Your task to perform on an android device: uninstall "Google Maps" Image 0: 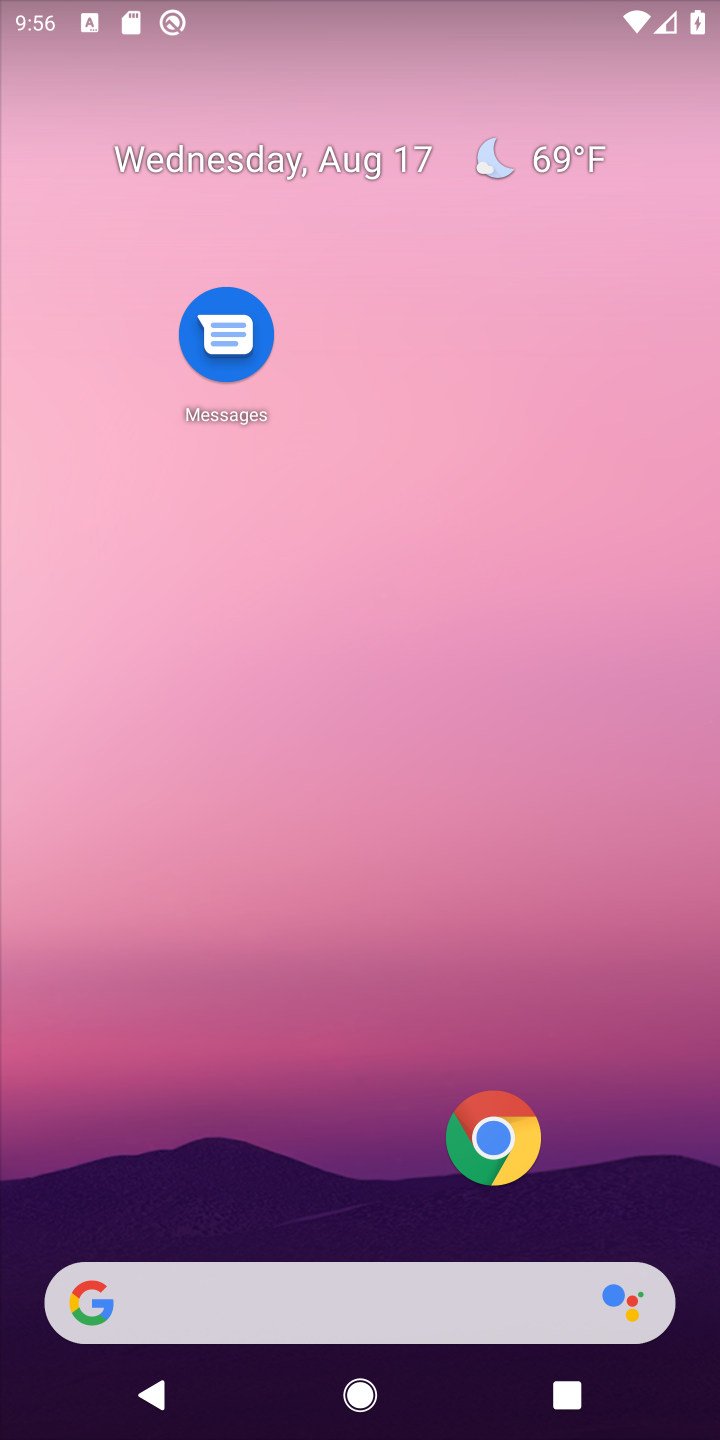
Step 0: drag from (65, 1235) to (187, 466)
Your task to perform on an android device: uninstall "Google Maps" Image 1: 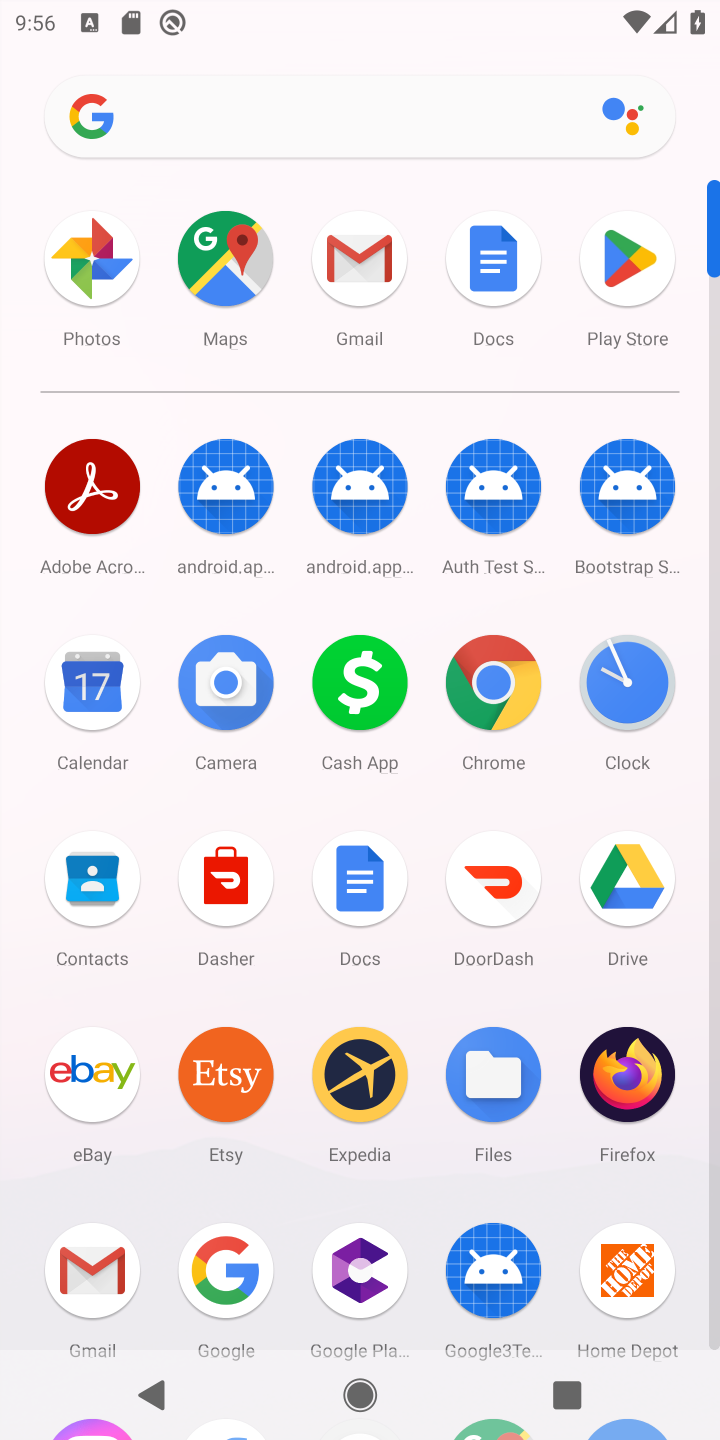
Step 1: click (636, 256)
Your task to perform on an android device: uninstall "Google Maps" Image 2: 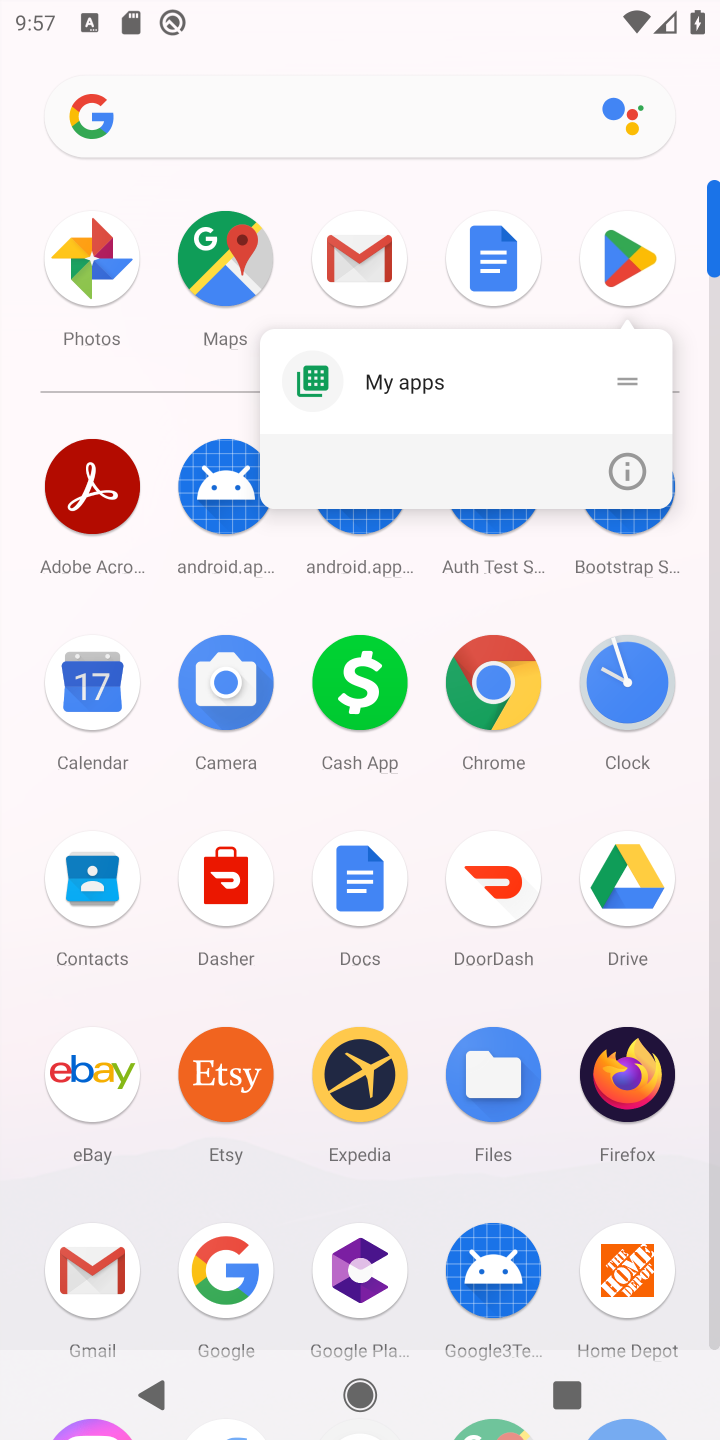
Step 2: click (600, 257)
Your task to perform on an android device: uninstall "Google Maps" Image 3: 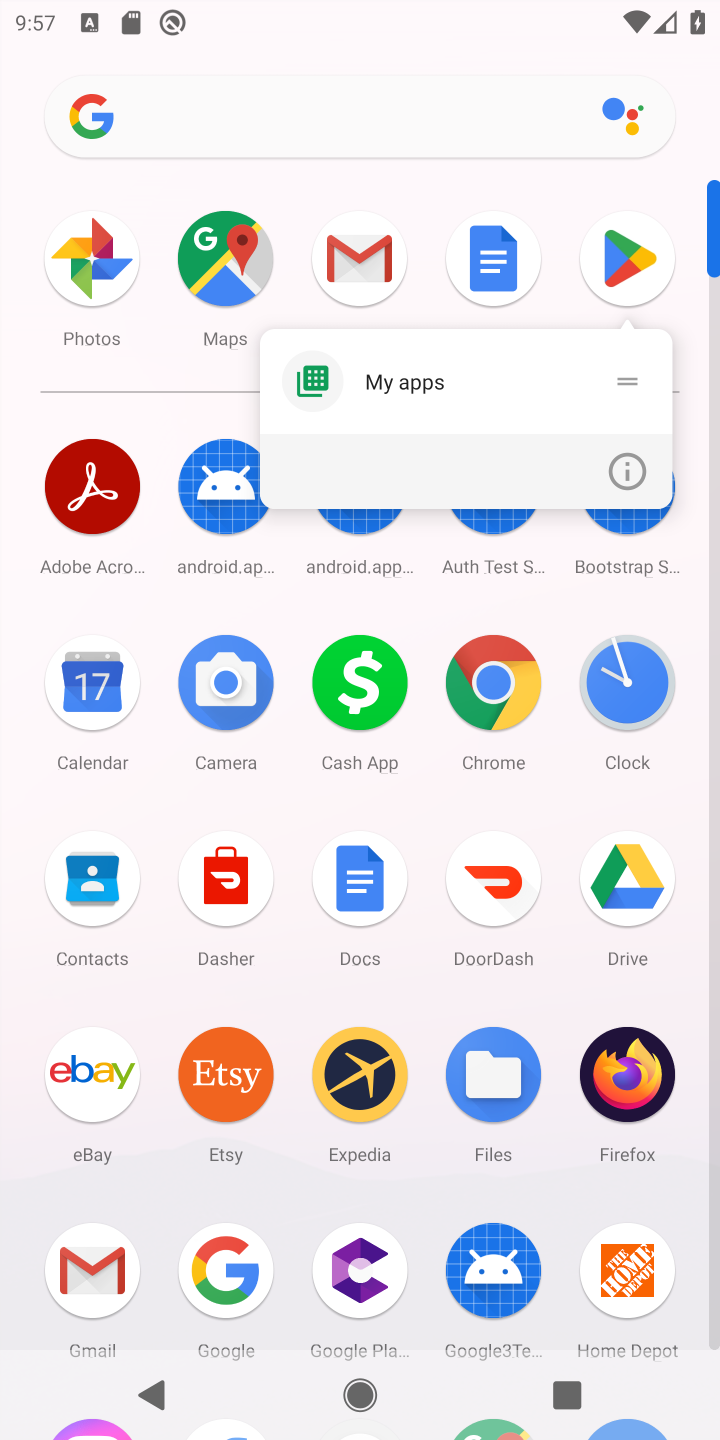
Step 3: click (642, 268)
Your task to perform on an android device: uninstall "Google Maps" Image 4: 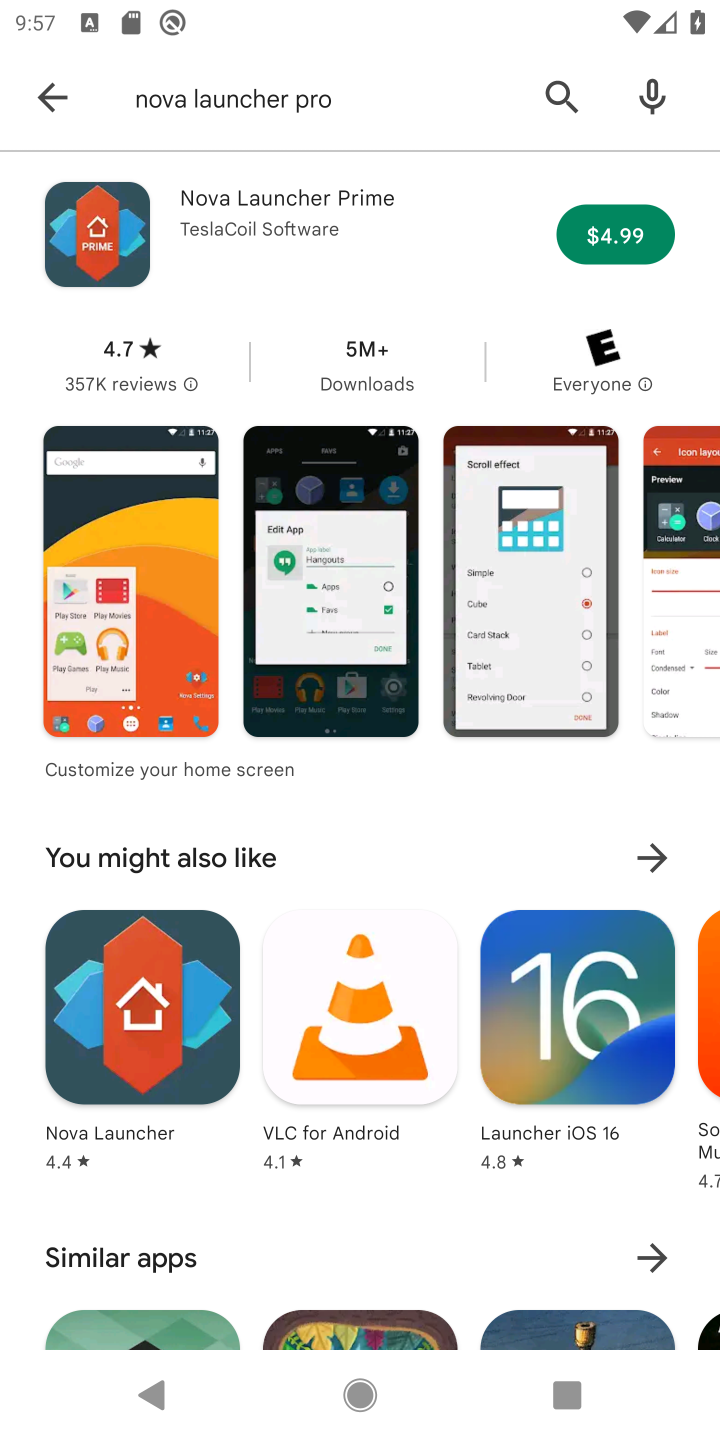
Step 4: click (55, 86)
Your task to perform on an android device: uninstall "Google Maps" Image 5: 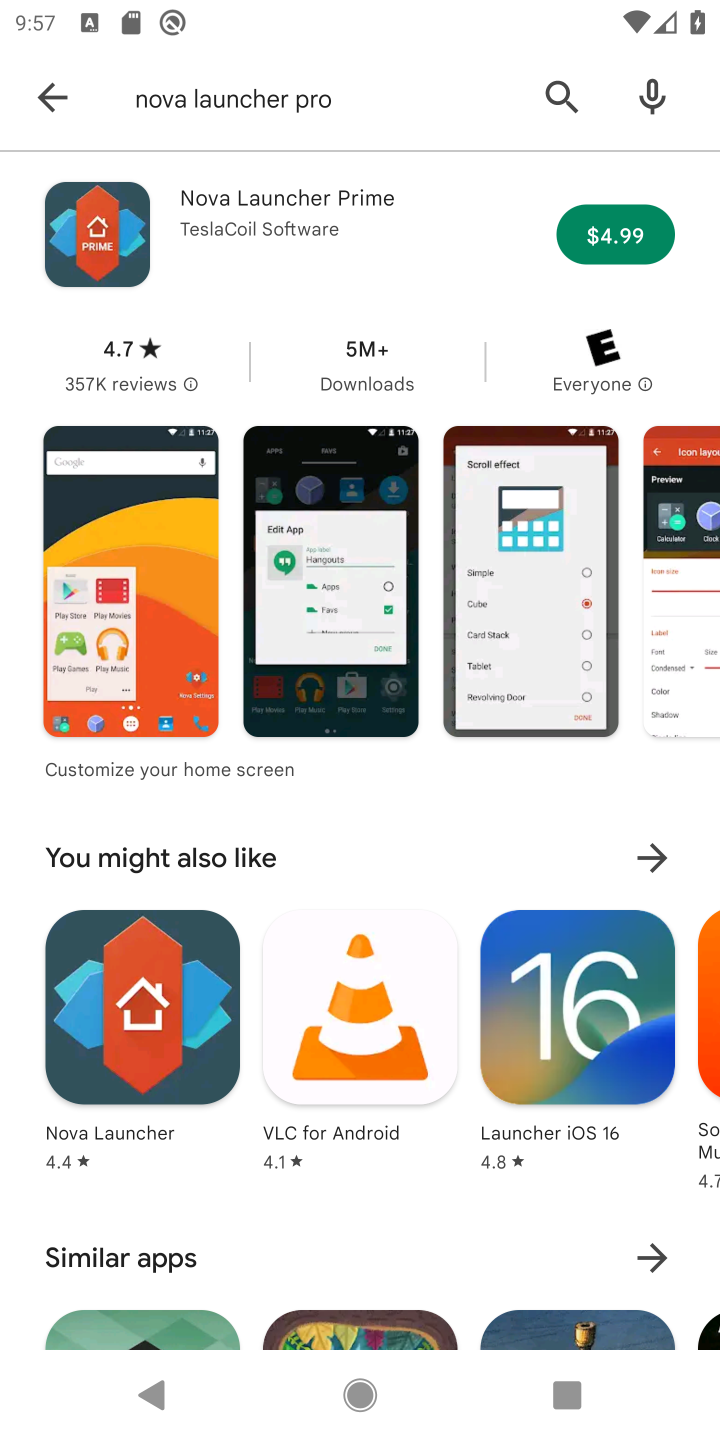
Step 5: click (55, 86)
Your task to perform on an android device: uninstall "Google Maps" Image 6: 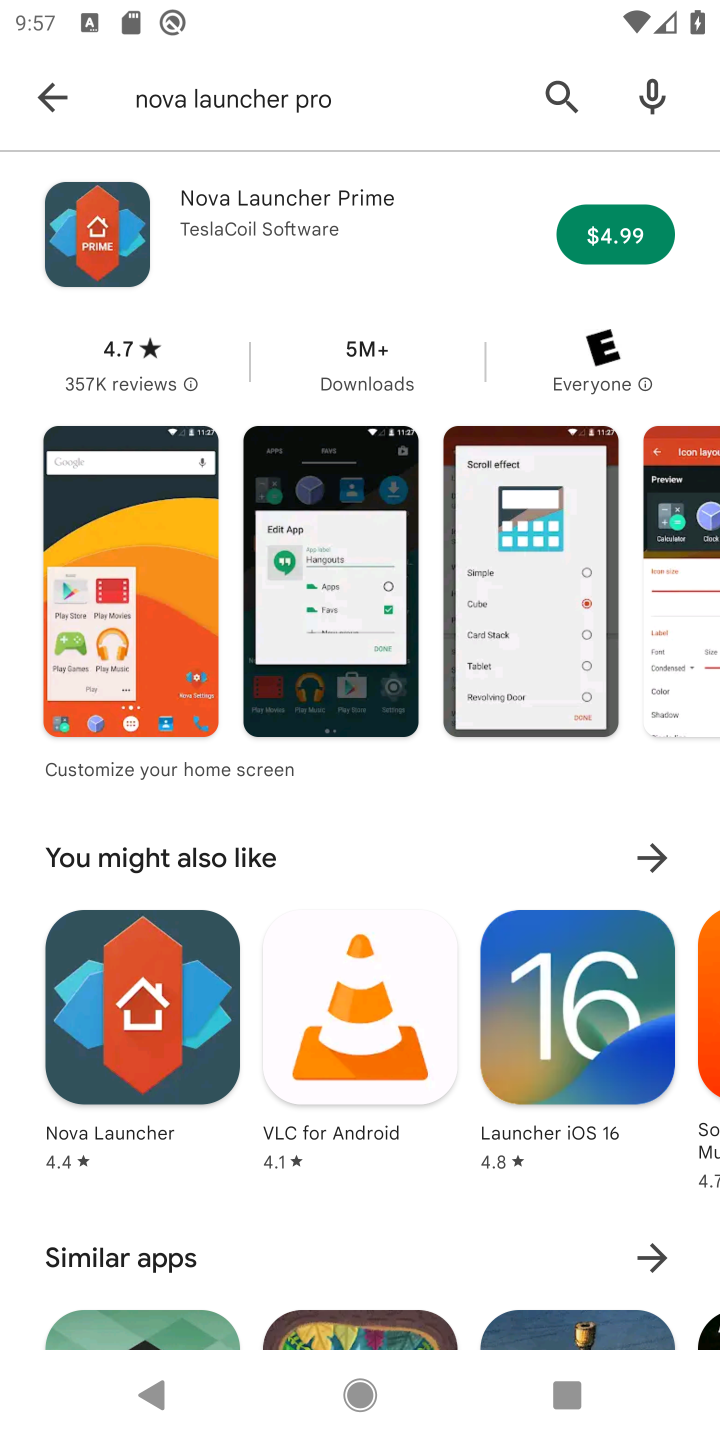
Step 6: click (55, 86)
Your task to perform on an android device: uninstall "Google Maps" Image 7: 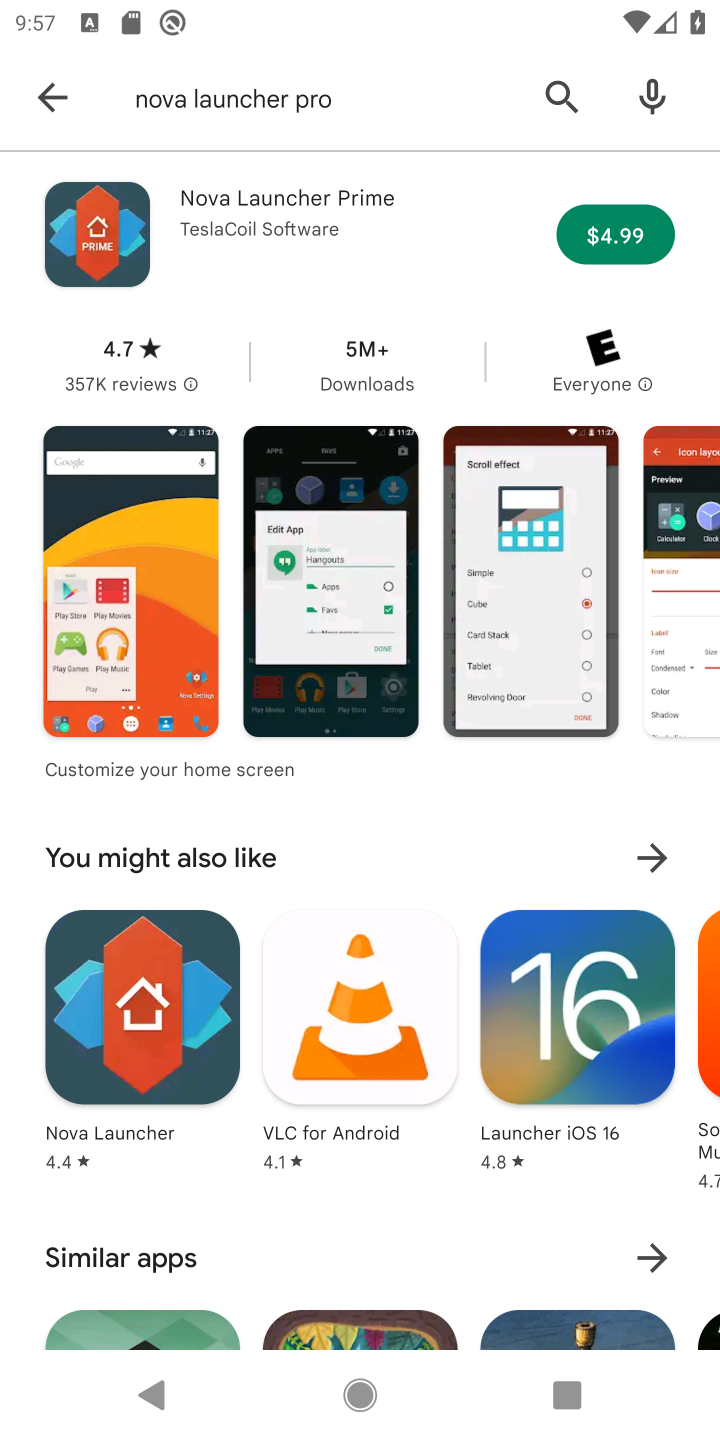
Step 7: click (56, 110)
Your task to perform on an android device: uninstall "Google Maps" Image 8: 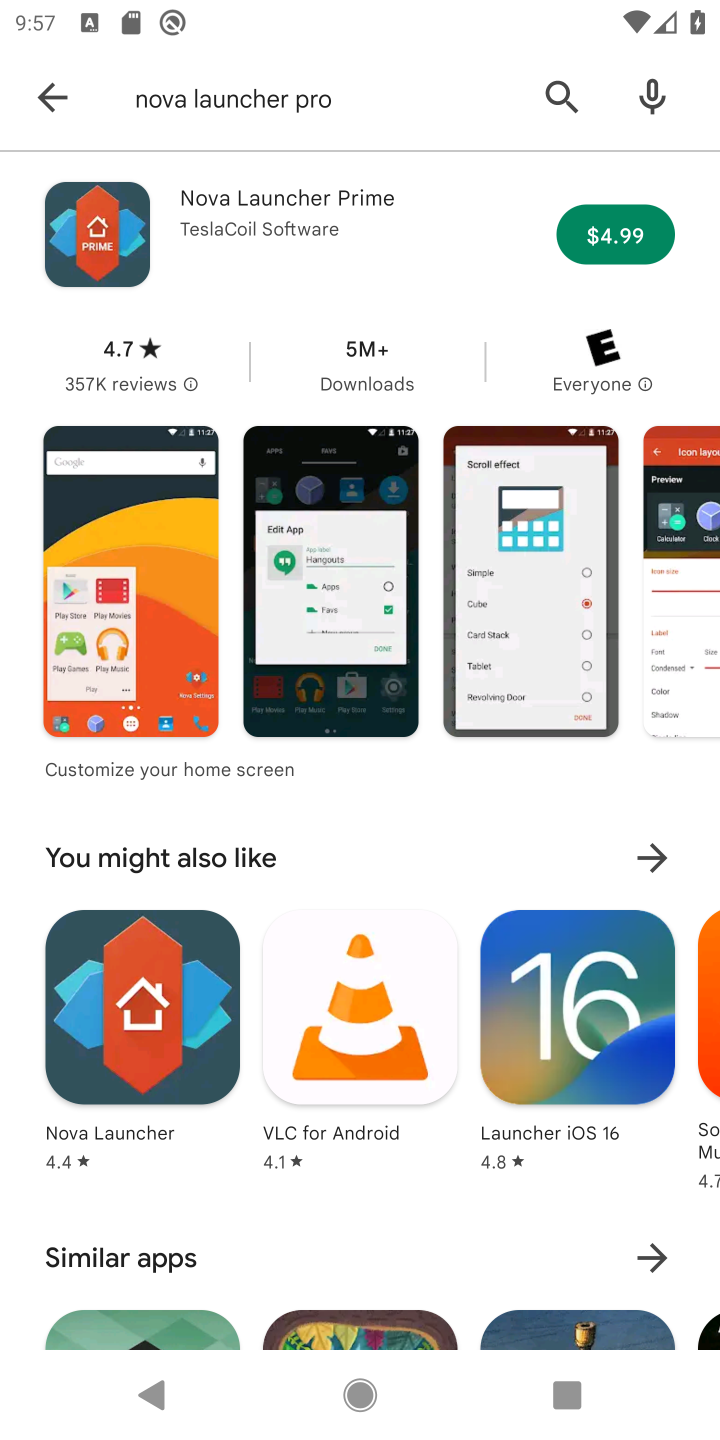
Step 8: click (48, 93)
Your task to perform on an android device: uninstall "Google Maps" Image 9: 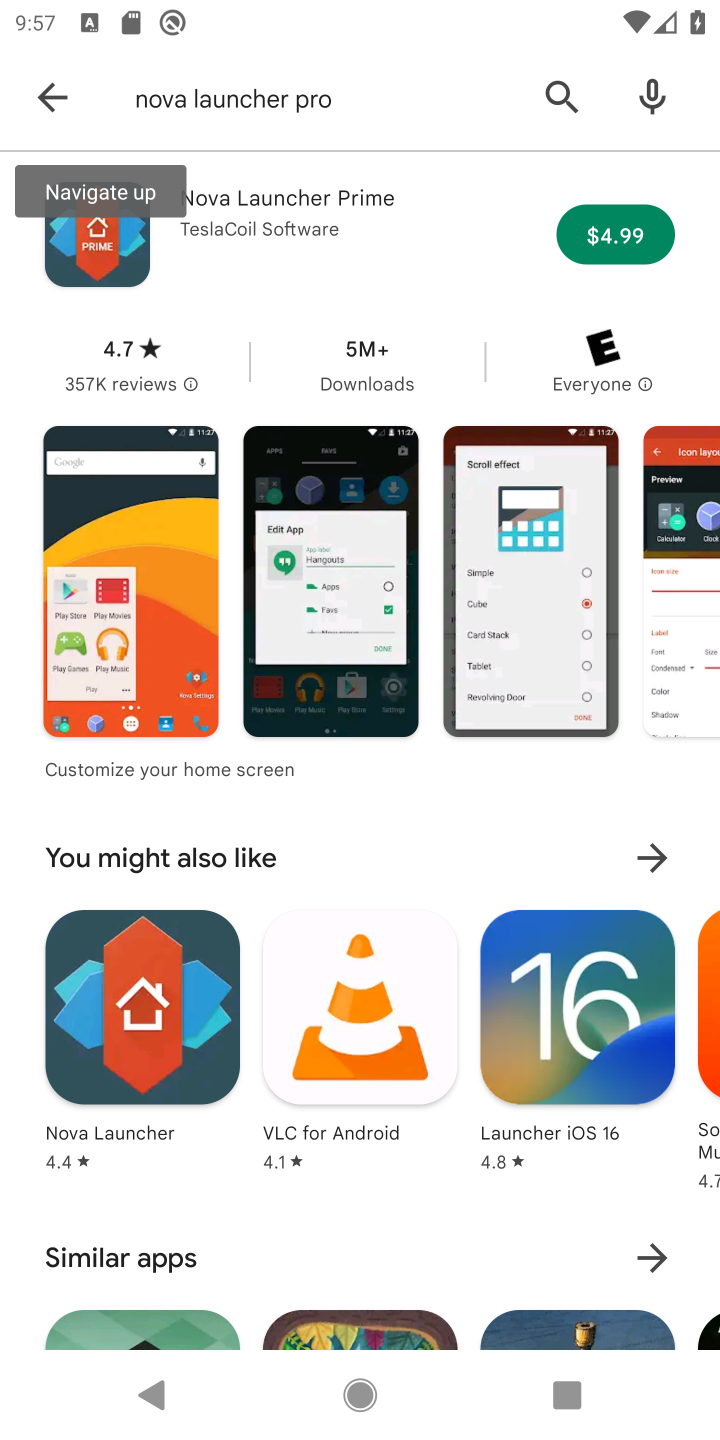
Step 9: click (48, 93)
Your task to perform on an android device: uninstall "Google Maps" Image 10: 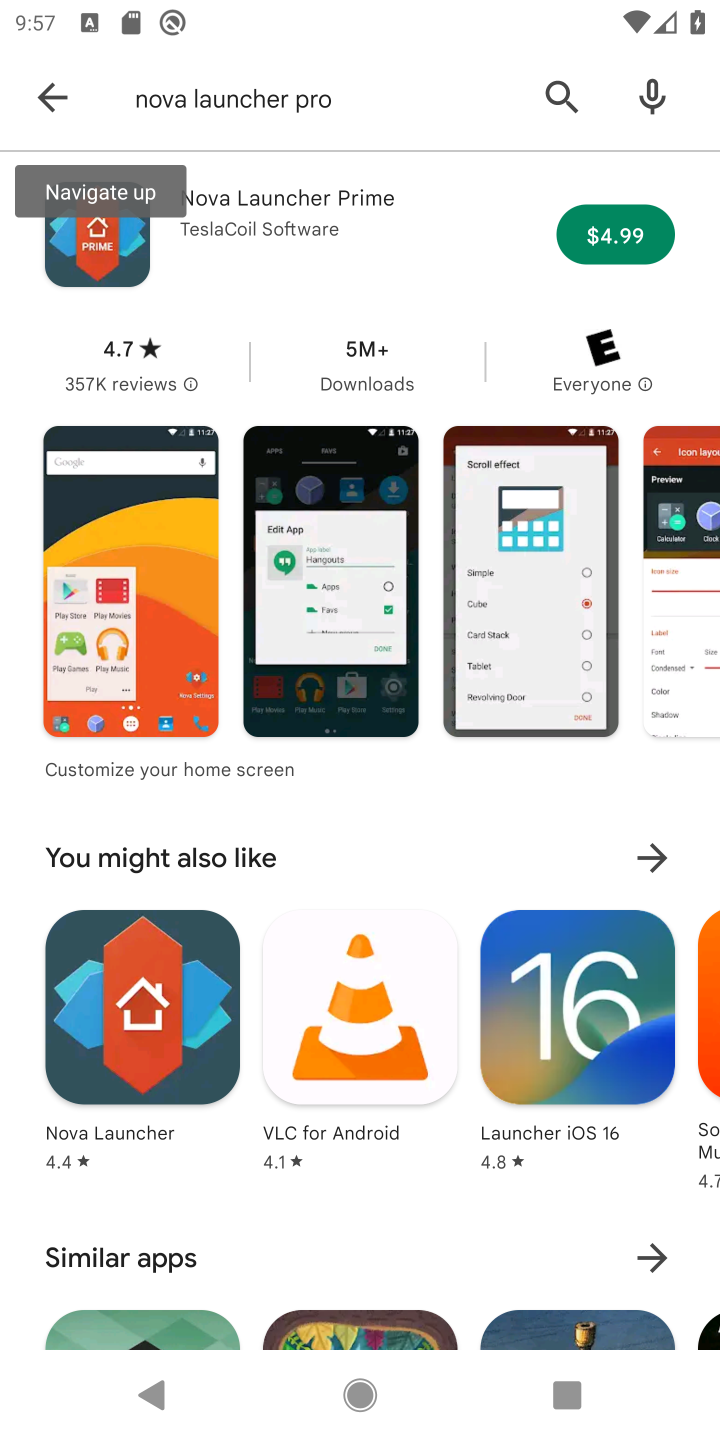
Step 10: click (48, 93)
Your task to perform on an android device: uninstall "Google Maps" Image 11: 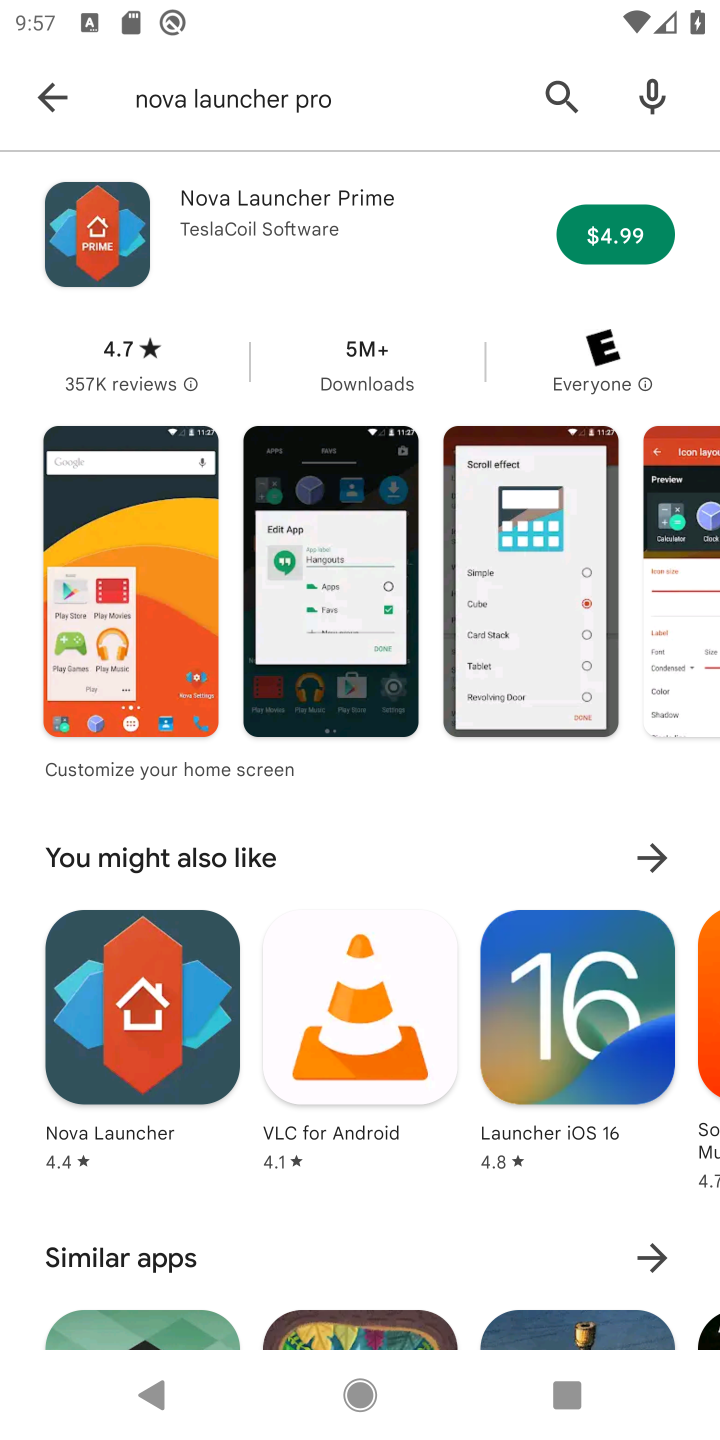
Step 11: click (48, 93)
Your task to perform on an android device: uninstall "Google Maps" Image 12: 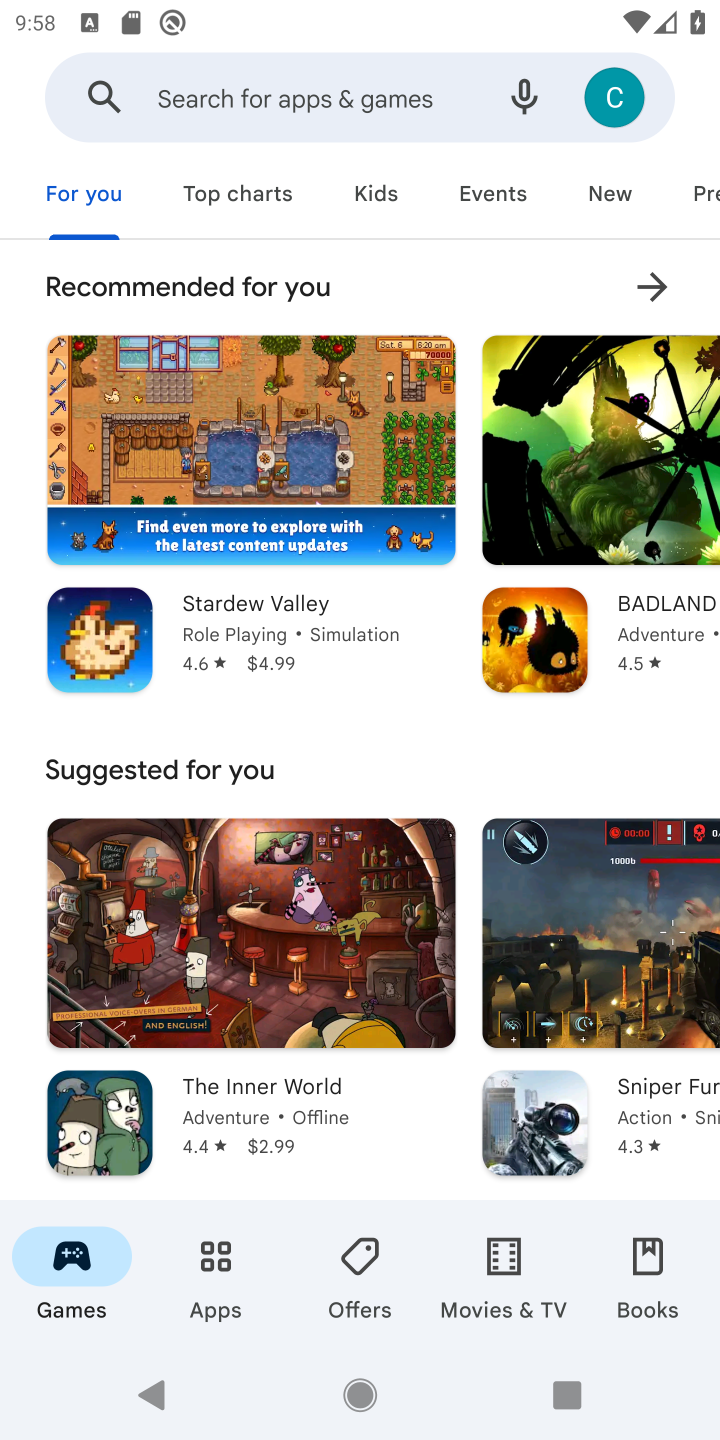
Step 12: click (263, 71)
Your task to perform on an android device: uninstall "Google Maps" Image 13: 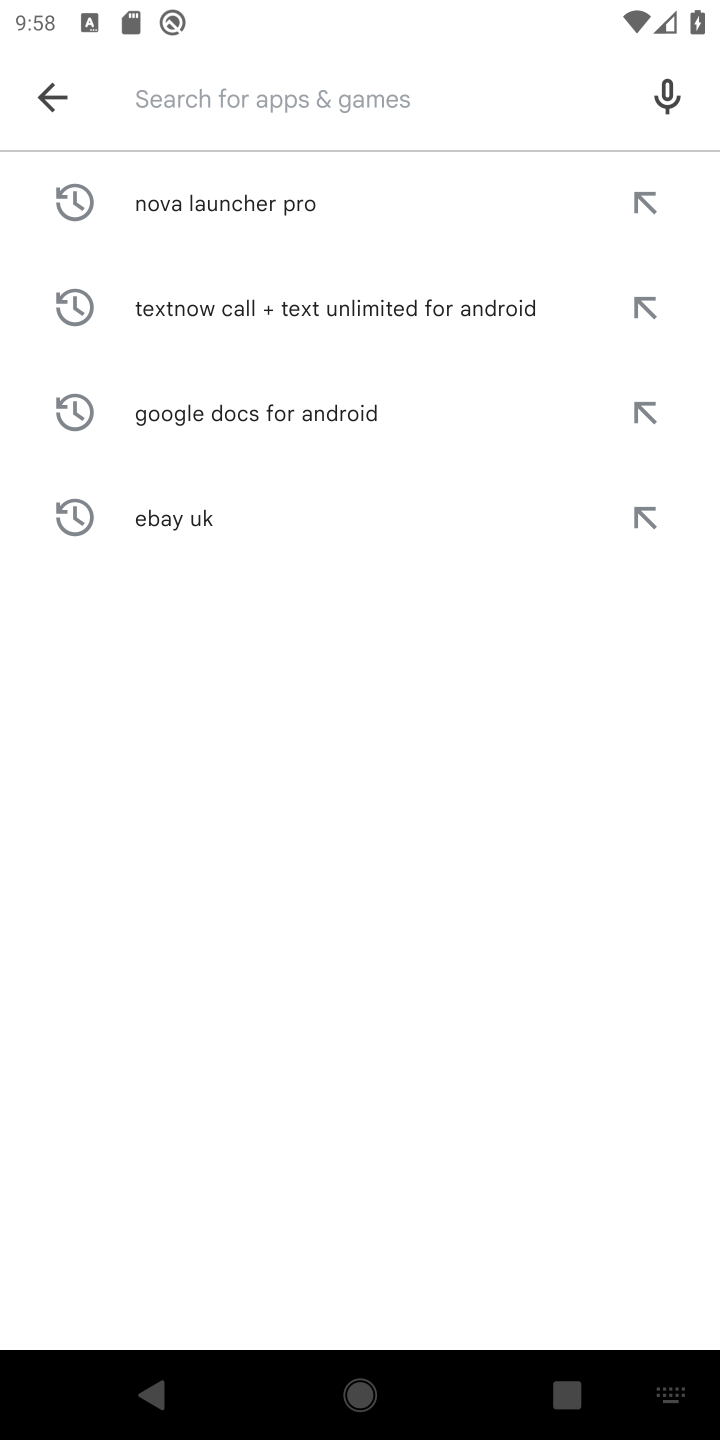
Step 13: type "Google Maps "
Your task to perform on an android device: uninstall "Google Maps" Image 14: 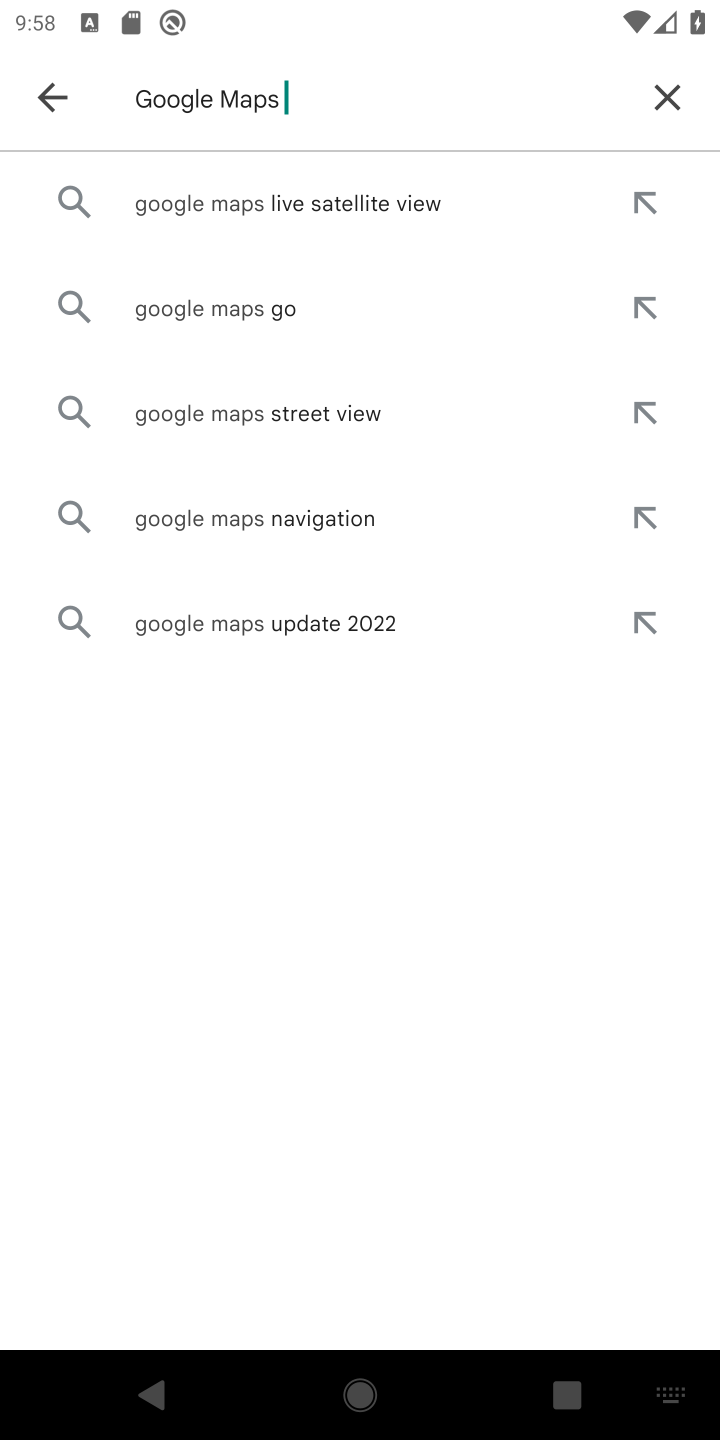
Step 14: click (290, 307)
Your task to perform on an android device: uninstall "Google Maps" Image 15: 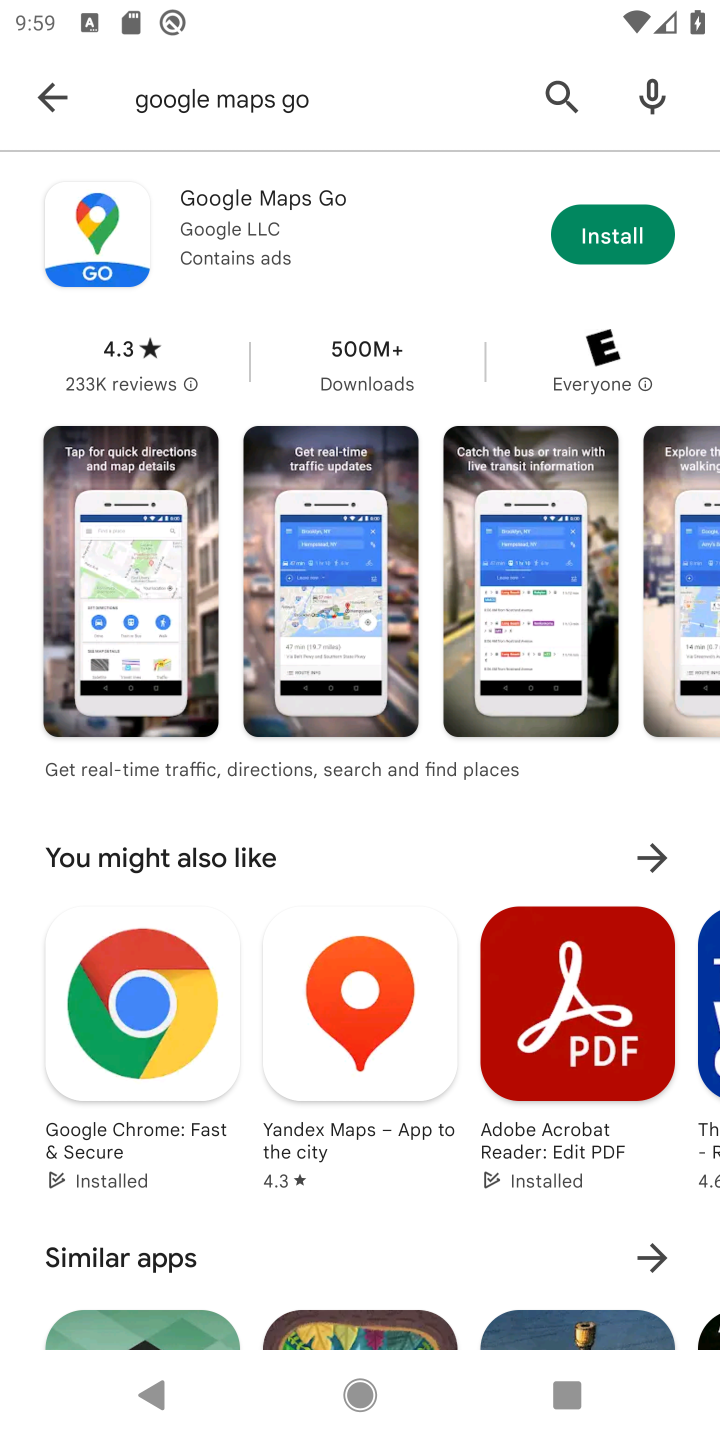
Step 15: task complete